Your task to perform on an android device: Go to CNN.com Image 0: 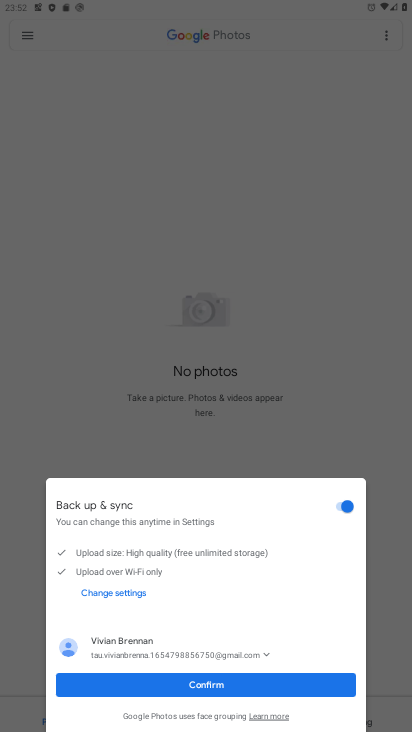
Step 0: press home button
Your task to perform on an android device: Go to CNN.com Image 1: 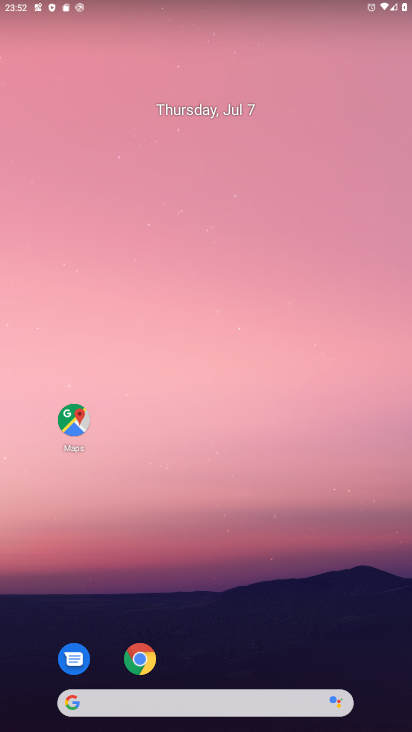
Step 1: click (145, 656)
Your task to perform on an android device: Go to CNN.com Image 2: 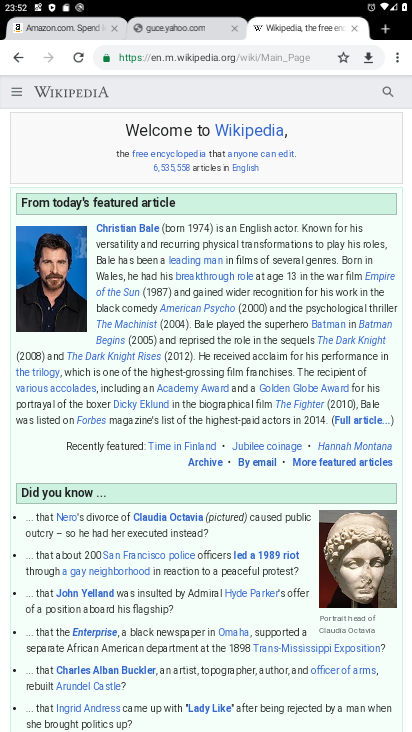
Step 2: click (394, 30)
Your task to perform on an android device: Go to CNN.com Image 3: 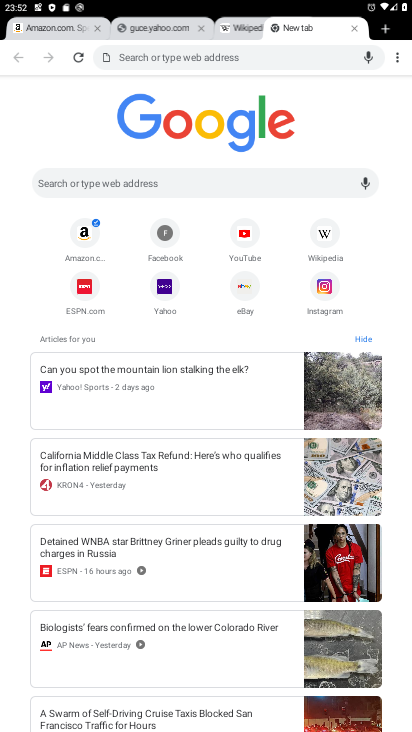
Step 3: type "cnn.com"
Your task to perform on an android device: Go to CNN.com Image 4: 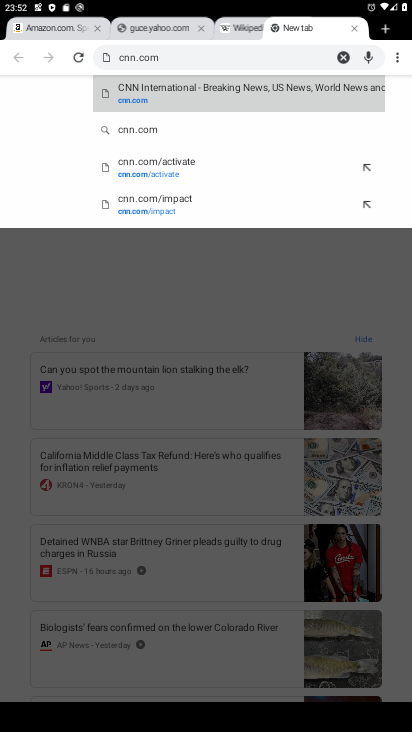
Step 4: click (249, 81)
Your task to perform on an android device: Go to CNN.com Image 5: 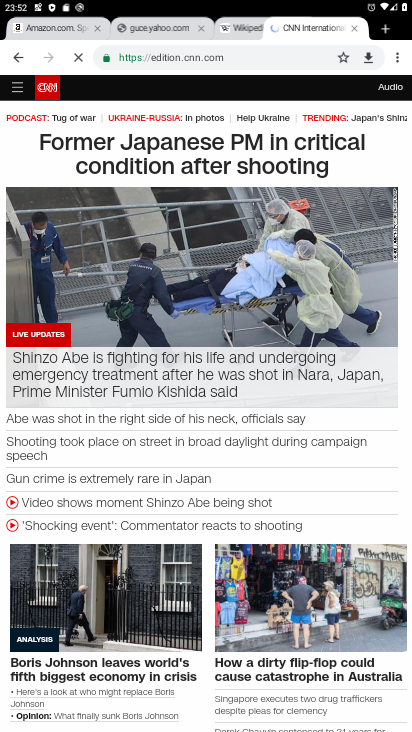
Step 5: task complete